Your task to perform on an android device: Go to privacy settings Image 0: 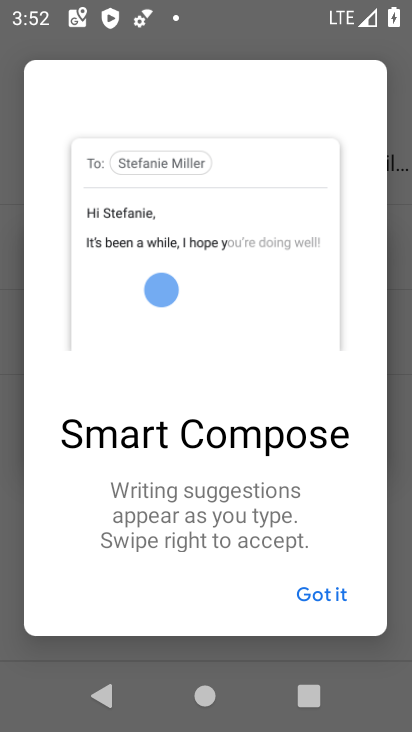
Step 0: press home button
Your task to perform on an android device: Go to privacy settings Image 1: 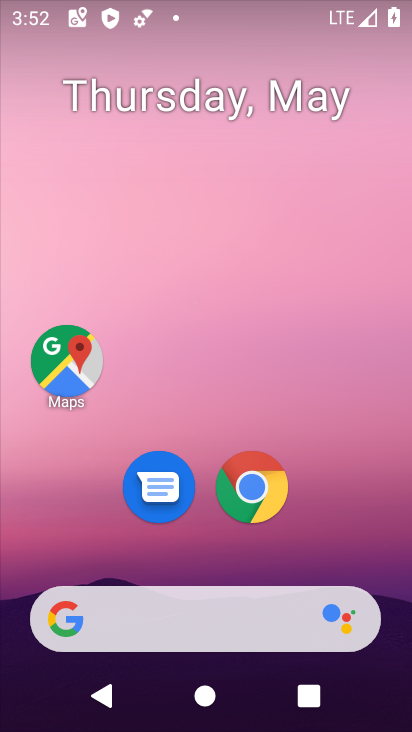
Step 1: drag from (204, 623) to (285, 95)
Your task to perform on an android device: Go to privacy settings Image 2: 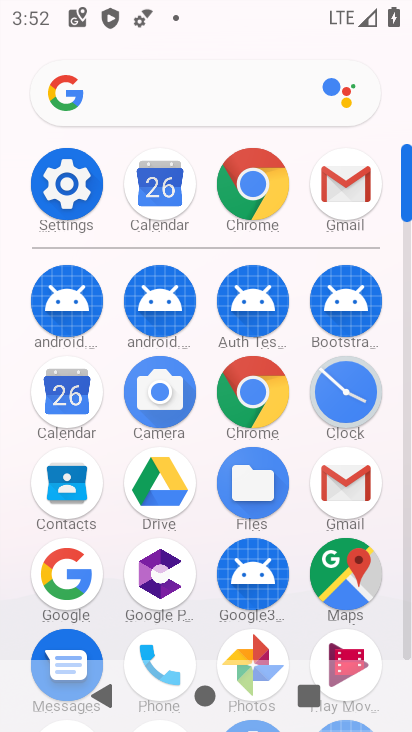
Step 2: click (74, 202)
Your task to perform on an android device: Go to privacy settings Image 3: 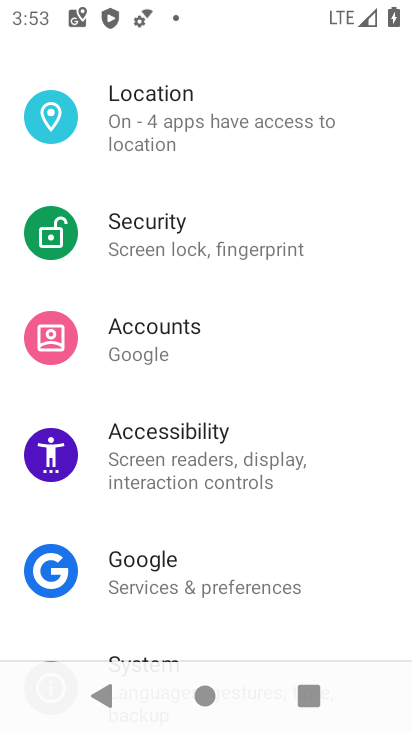
Step 3: drag from (160, 488) to (259, 206)
Your task to perform on an android device: Go to privacy settings Image 4: 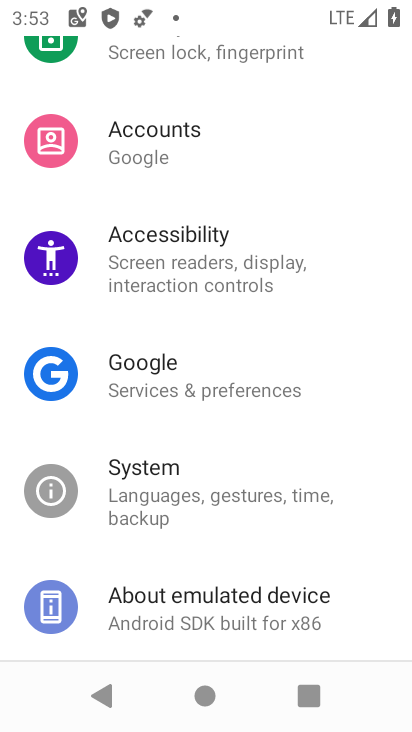
Step 4: drag from (194, 464) to (286, 179)
Your task to perform on an android device: Go to privacy settings Image 5: 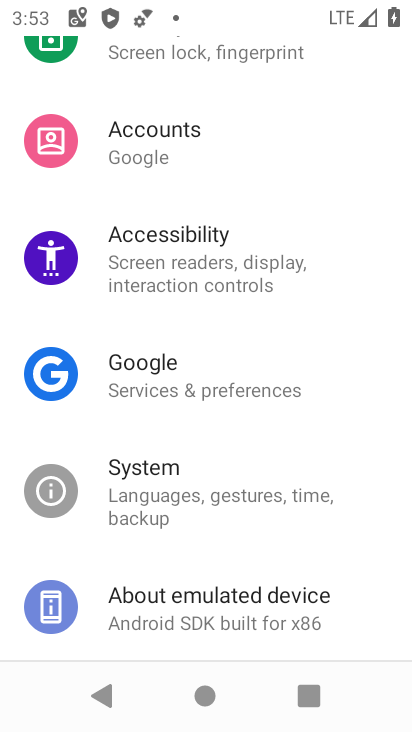
Step 5: drag from (226, 167) to (175, 577)
Your task to perform on an android device: Go to privacy settings Image 6: 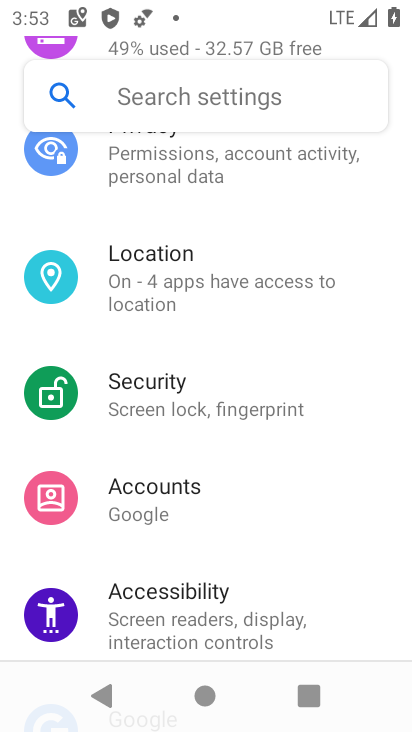
Step 6: drag from (226, 390) to (140, 657)
Your task to perform on an android device: Go to privacy settings Image 7: 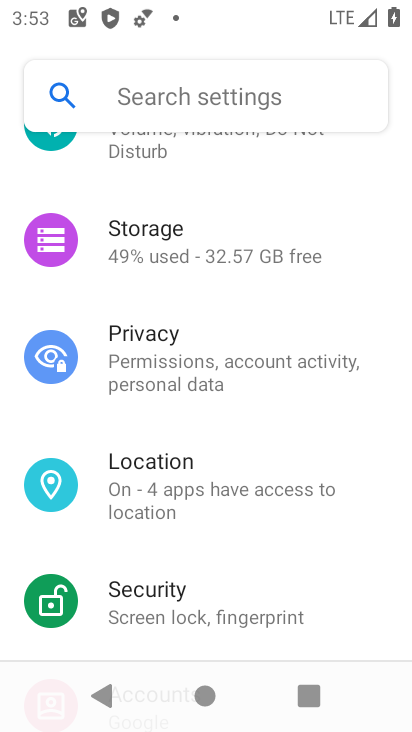
Step 7: click (232, 366)
Your task to perform on an android device: Go to privacy settings Image 8: 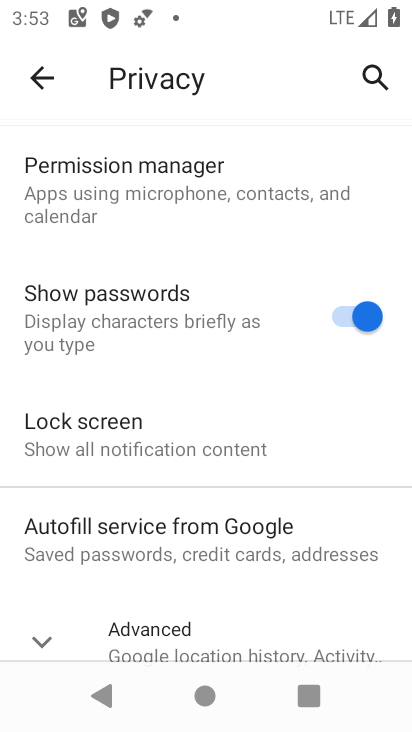
Step 8: task complete